Your task to perform on an android device: turn on location history Image 0: 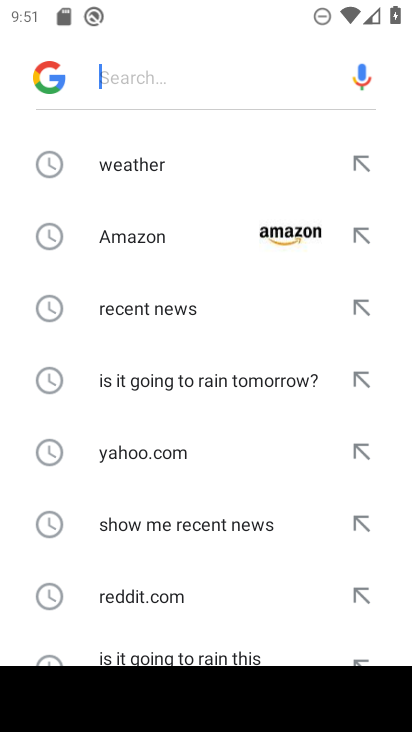
Step 0: press home button
Your task to perform on an android device: turn on location history Image 1: 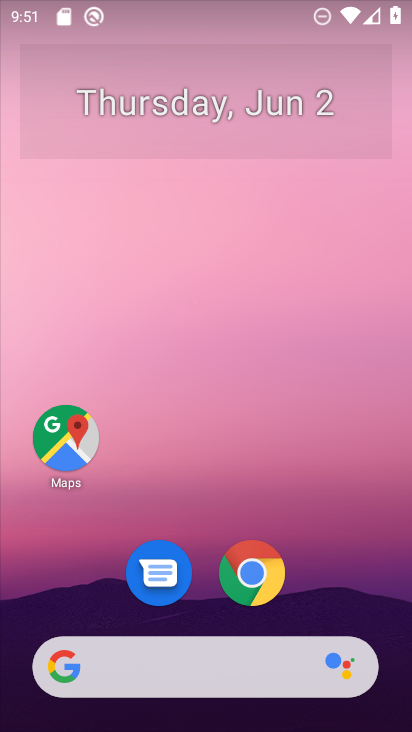
Step 1: drag from (399, 573) to (286, 130)
Your task to perform on an android device: turn on location history Image 2: 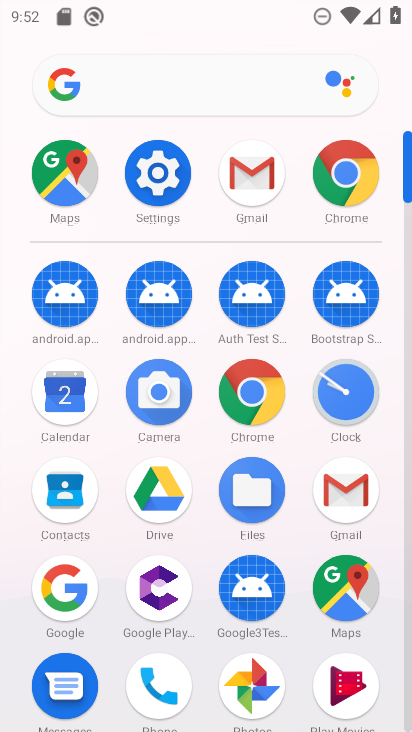
Step 2: click (144, 168)
Your task to perform on an android device: turn on location history Image 3: 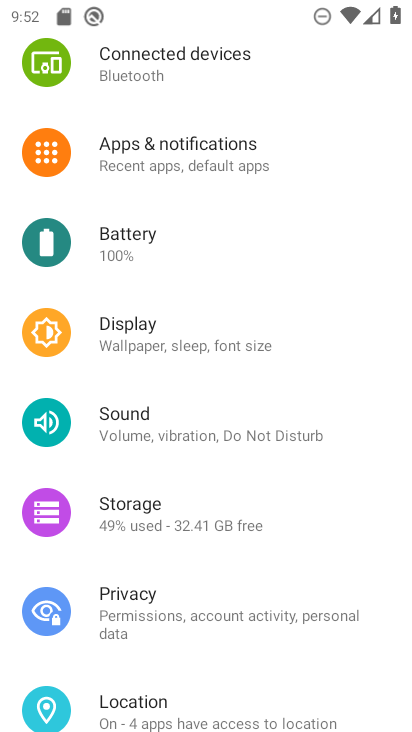
Step 3: drag from (238, 590) to (231, 126)
Your task to perform on an android device: turn on location history Image 4: 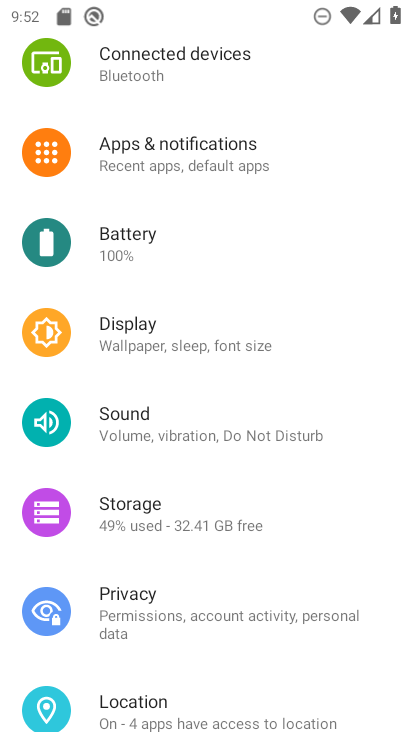
Step 4: click (148, 694)
Your task to perform on an android device: turn on location history Image 5: 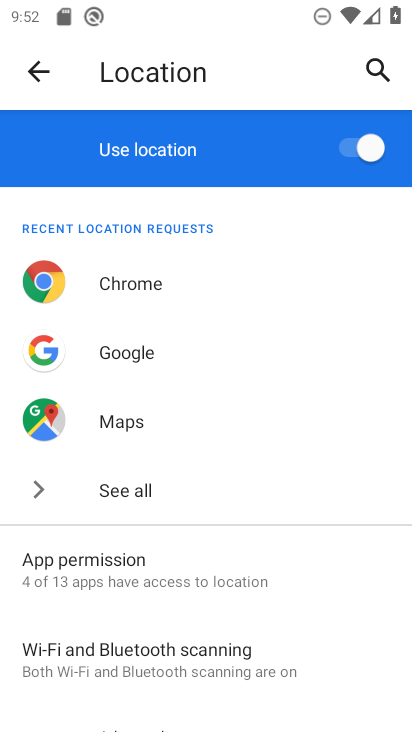
Step 5: drag from (176, 611) to (159, 160)
Your task to perform on an android device: turn on location history Image 6: 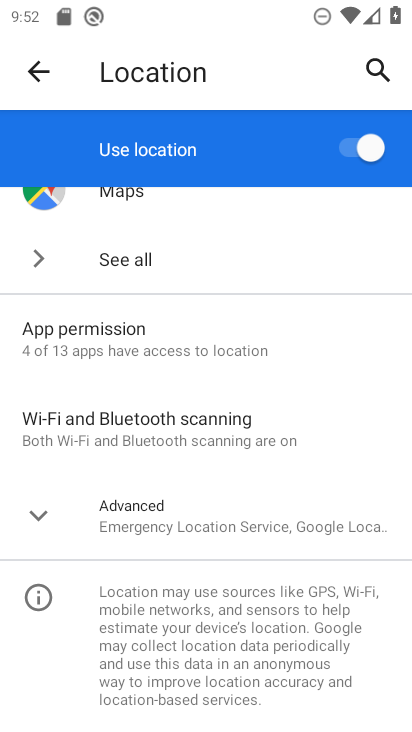
Step 6: click (177, 527)
Your task to perform on an android device: turn on location history Image 7: 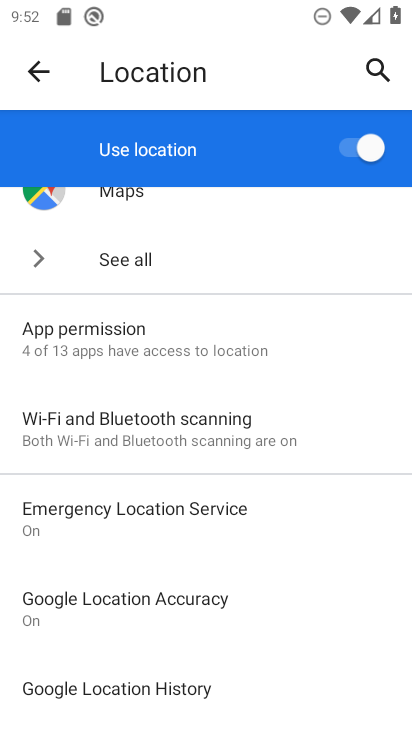
Step 7: click (190, 685)
Your task to perform on an android device: turn on location history Image 8: 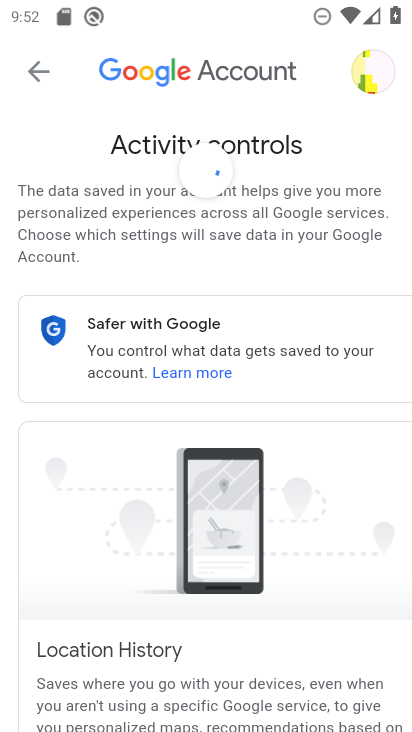
Step 8: drag from (295, 551) to (249, 81)
Your task to perform on an android device: turn on location history Image 9: 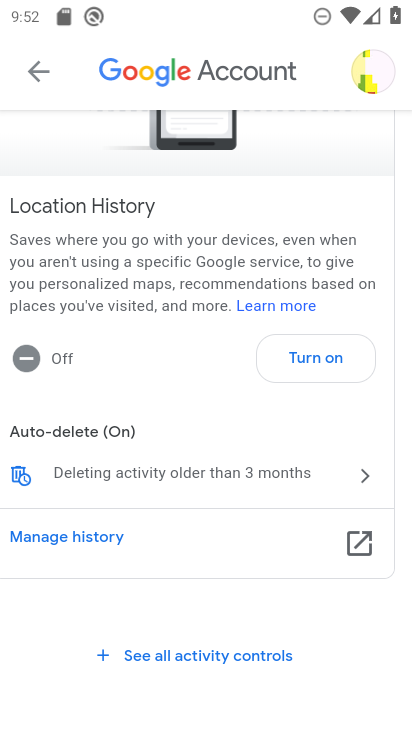
Step 9: click (325, 355)
Your task to perform on an android device: turn on location history Image 10: 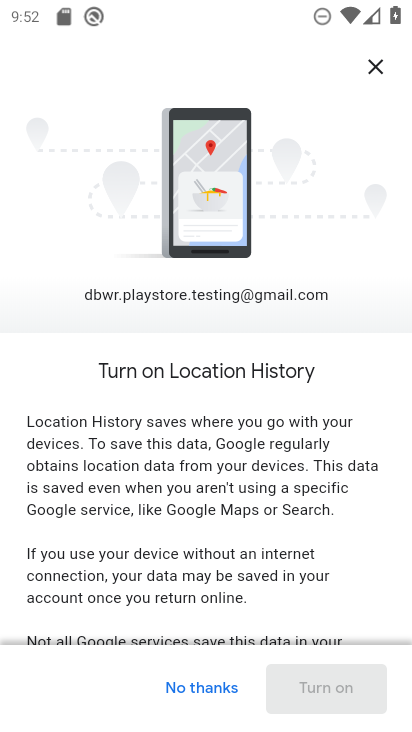
Step 10: drag from (247, 559) to (213, 141)
Your task to perform on an android device: turn on location history Image 11: 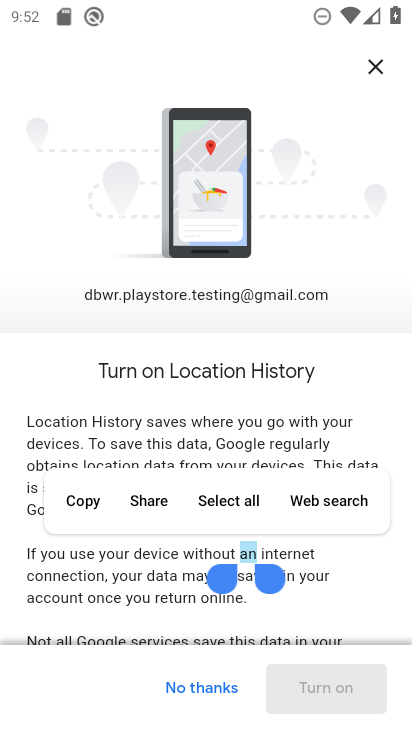
Step 11: click (256, 408)
Your task to perform on an android device: turn on location history Image 12: 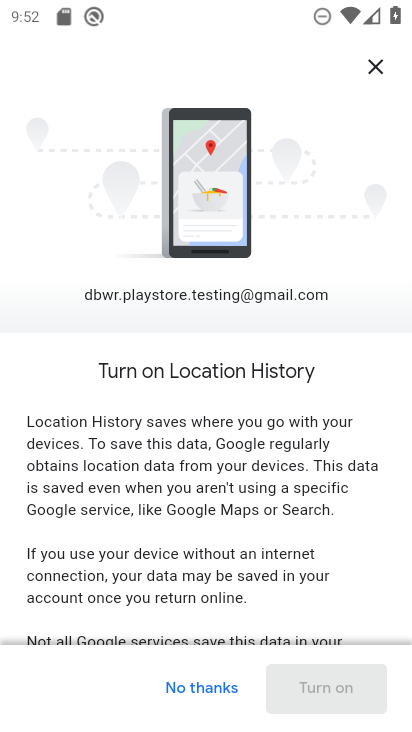
Step 12: drag from (266, 473) to (262, 52)
Your task to perform on an android device: turn on location history Image 13: 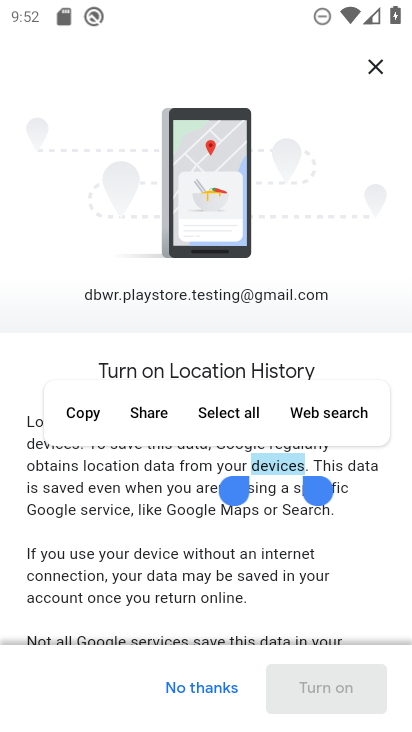
Step 13: click (171, 558)
Your task to perform on an android device: turn on location history Image 14: 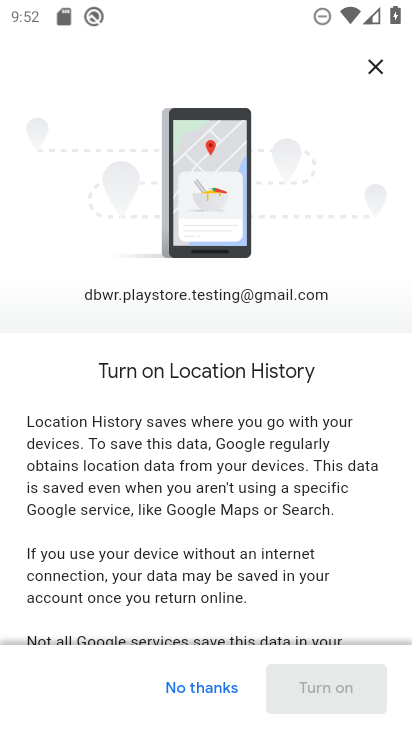
Step 14: drag from (219, 574) to (217, 87)
Your task to perform on an android device: turn on location history Image 15: 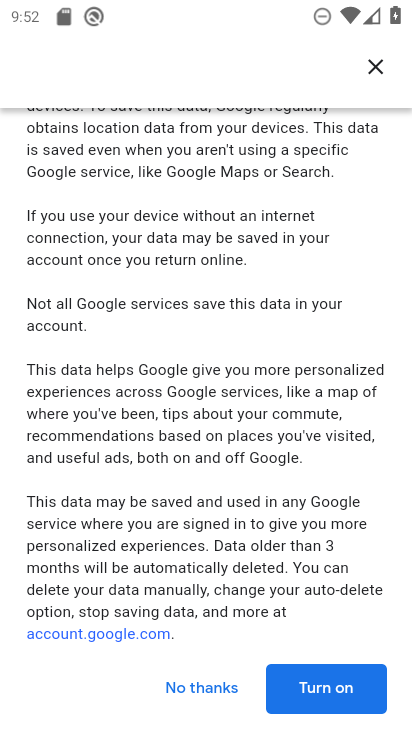
Step 15: click (332, 693)
Your task to perform on an android device: turn on location history Image 16: 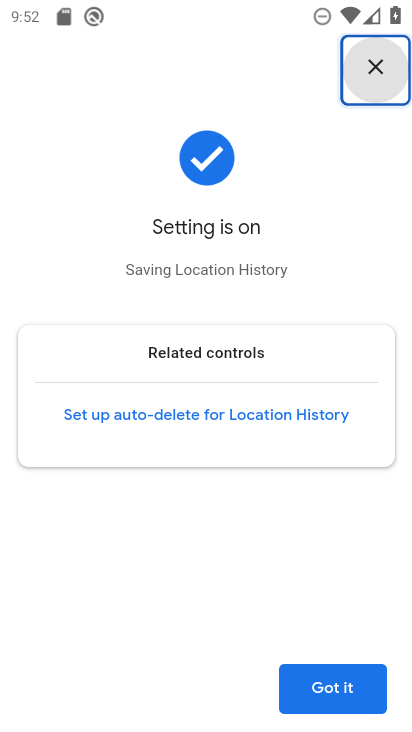
Step 16: task complete